Your task to perform on an android device: Go to display settings Image 0: 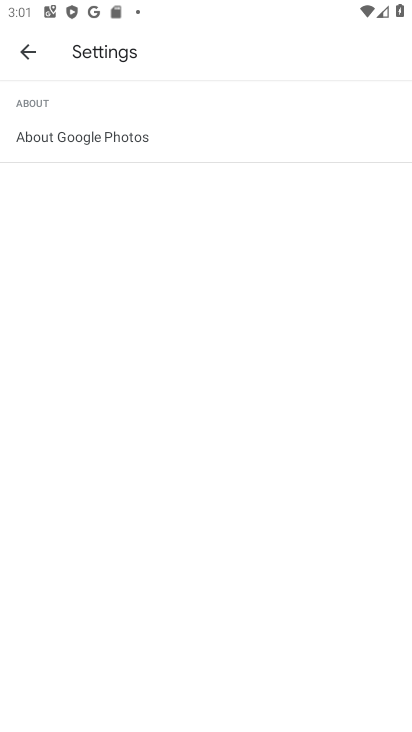
Step 0: press home button
Your task to perform on an android device: Go to display settings Image 1: 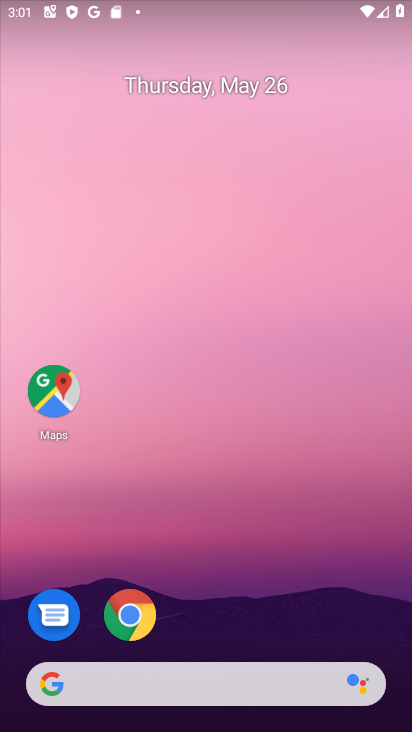
Step 1: drag from (226, 604) to (277, 55)
Your task to perform on an android device: Go to display settings Image 2: 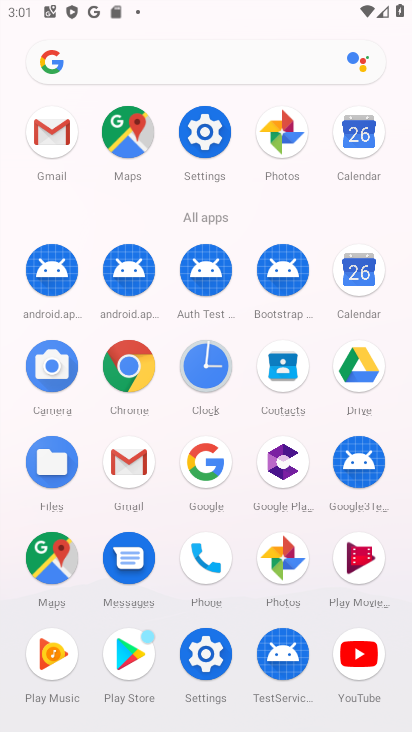
Step 2: click (198, 142)
Your task to perform on an android device: Go to display settings Image 3: 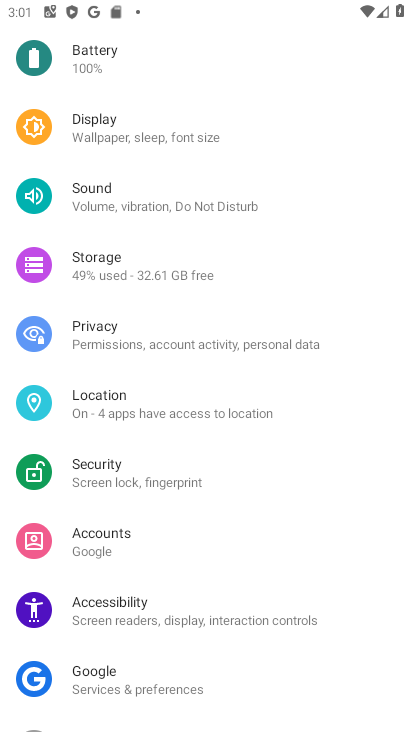
Step 3: click (167, 142)
Your task to perform on an android device: Go to display settings Image 4: 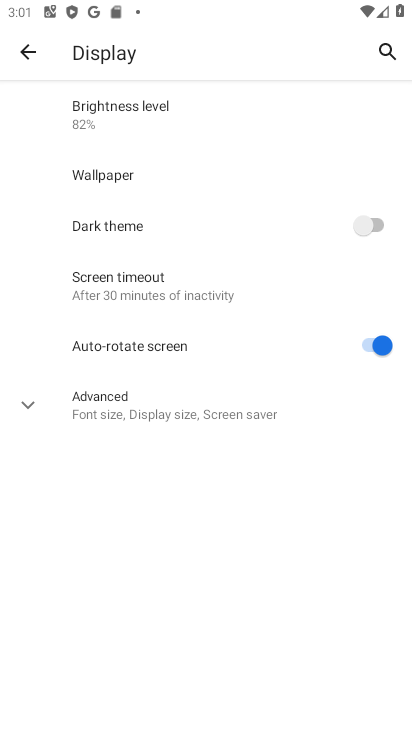
Step 4: task complete